Your task to perform on an android device: Open calendar and show me the second week of next month Image 0: 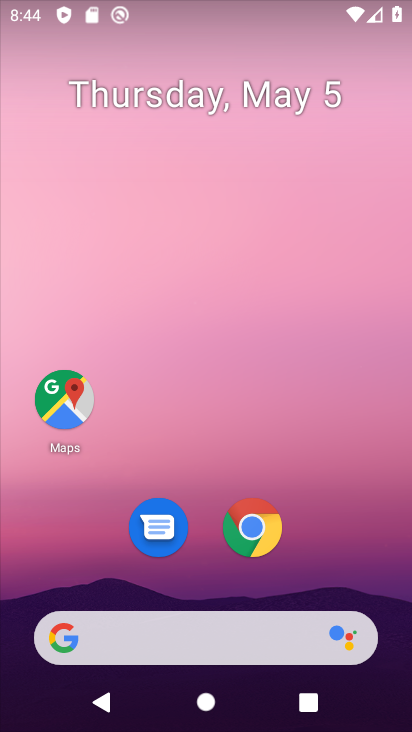
Step 0: drag from (360, 600) to (101, 25)
Your task to perform on an android device: Open calendar and show me the second week of next month Image 1: 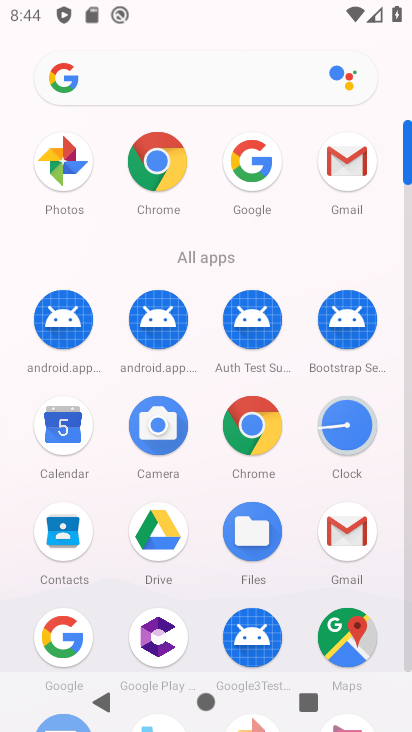
Step 1: click (62, 431)
Your task to perform on an android device: Open calendar and show me the second week of next month Image 2: 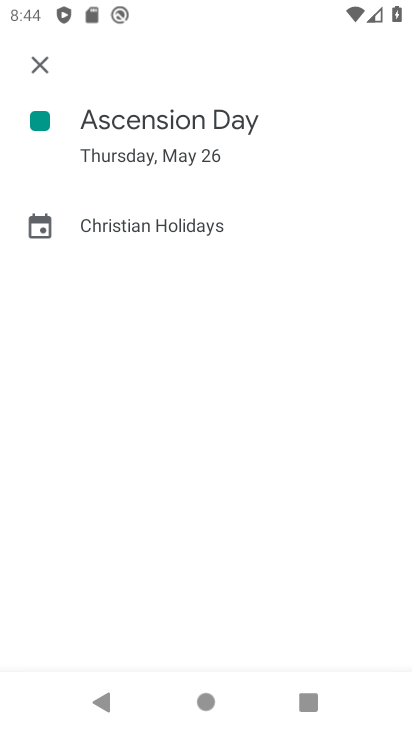
Step 2: click (45, 58)
Your task to perform on an android device: Open calendar and show me the second week of next month Image 3: 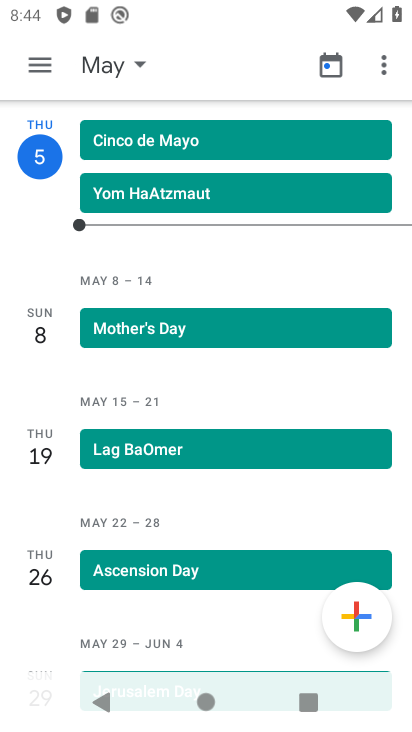
Step 3: click (142, 63)
Your task to perform on an android device: Open calendar and show me the second week of next month Image 4: 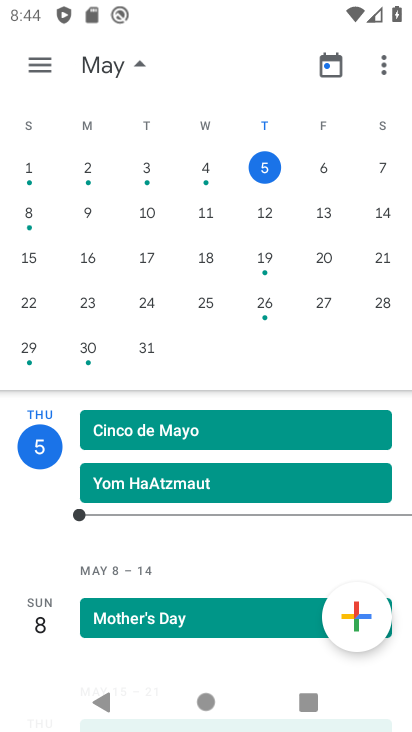
Step 4: drag from (295, 233) to (20, 214)
Your task to perform on an android device: Open calendar and show me the second week of next month Image 5: 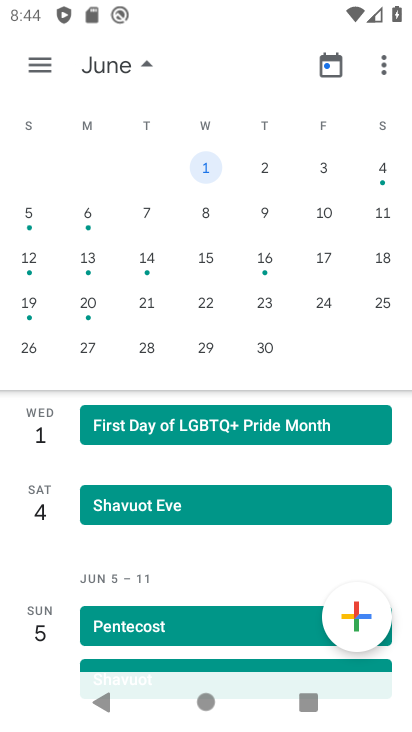
Step 5: click (201, 210)
Your task to perform on an android device: Open calendar and show me the second week of next month Image 6: 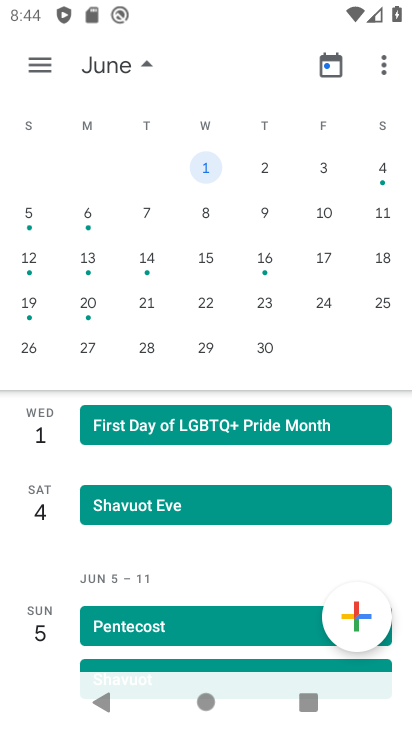
Step 6: click (202, 211)
Your task to perform on an android device: Open calendar and show me the second week of next month Image 7: 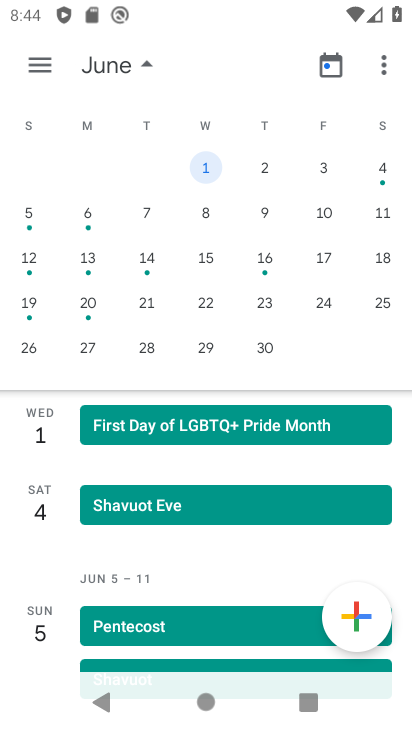
Step 7: click (202, 211)
Your task to perform on an android device: Open calendar and show me the second week of next month Image 8: 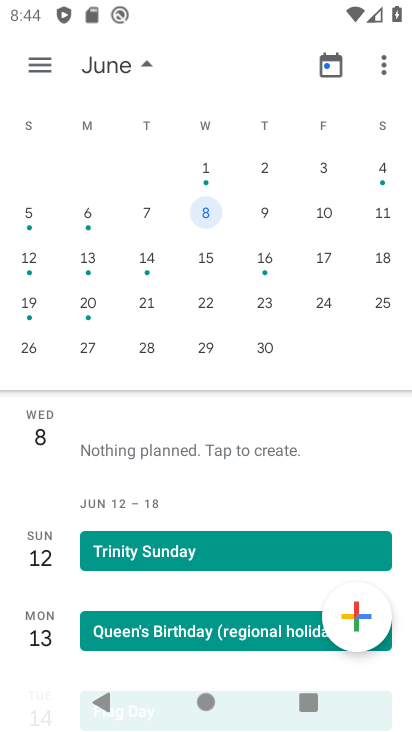
Step 8: click (202, 211)
Your task to perform on an android device: Open calendar and show me the second week of next month Image 9: 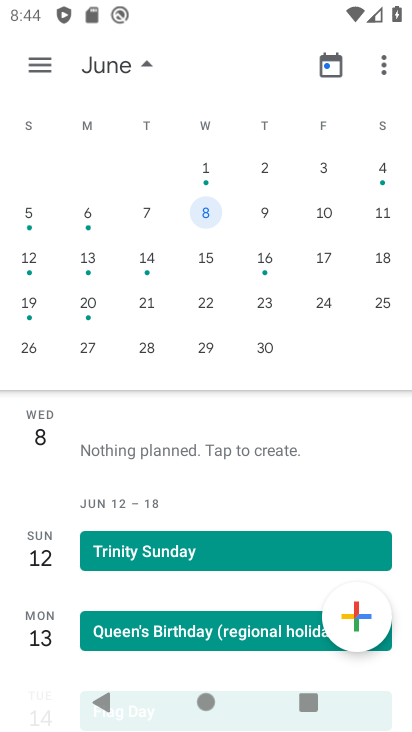
Step 9: task complete